Your task to perform on an android device: show emergency info Image 0: 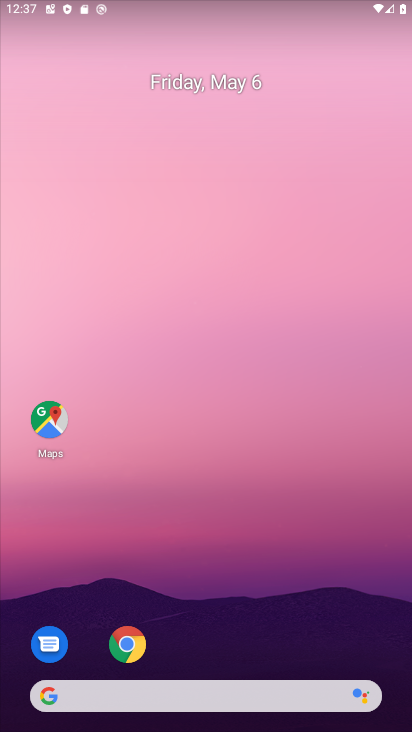
Step 0: drag from (244, 710) to (218, 225)
Your task to perform on an android device: show emergency info Image 1: 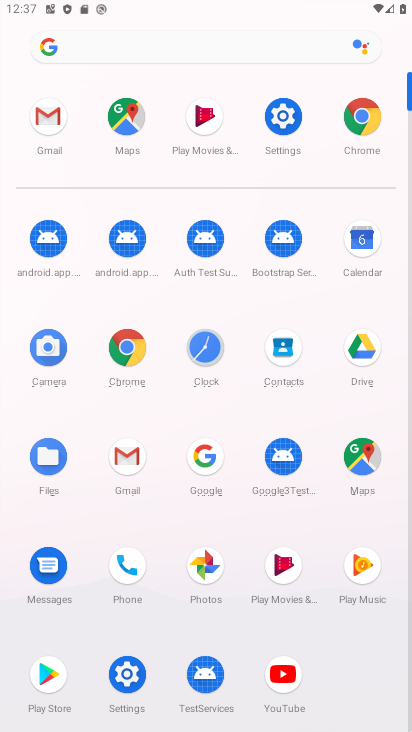
Step 1: click (275, 128)
Your task to perform on an android device: show emergency info Image 2: 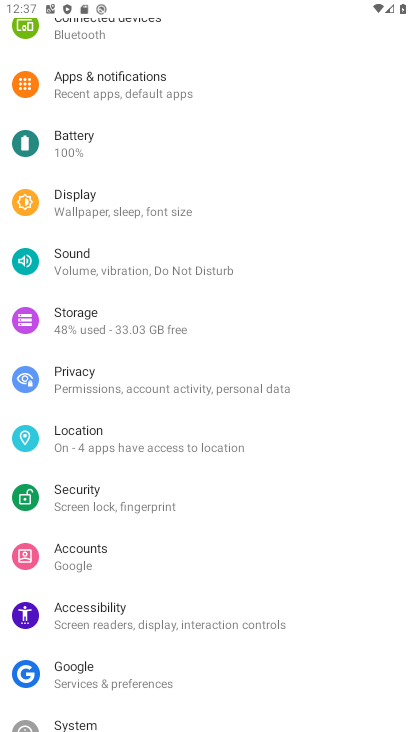
Step 2: drag from (229, 673) to (231, 223)
Your task to perform on an android device: show emergency info Image 3: 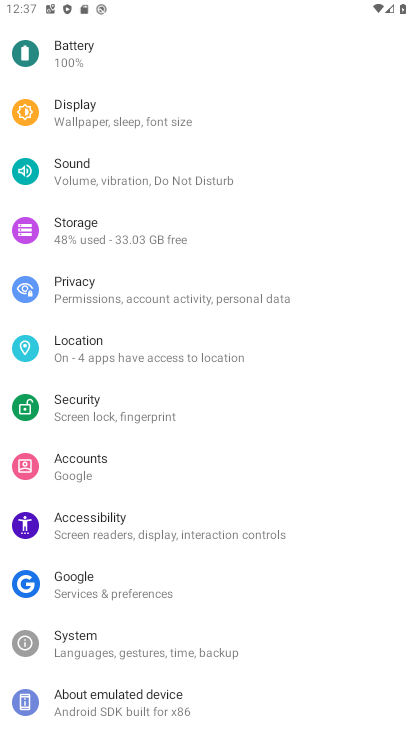
Step 3: click (185, 708)
Your task to perform on an android device: show emergency info Image 4: 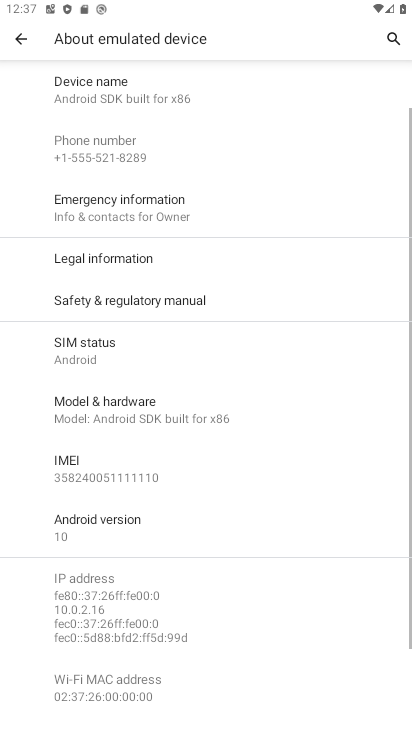
Step 4: click (201, 211)
Your task to perform on an android device: show emergency info Image 5: 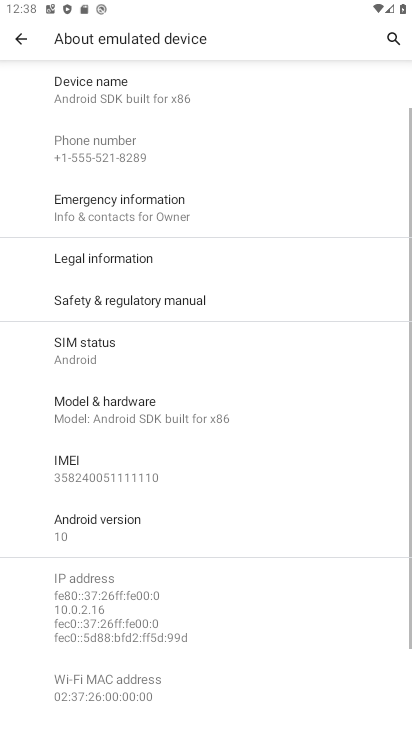
Step 5: task complete